Your task to perform on an android device: toggle improve location accuracy Image 0: 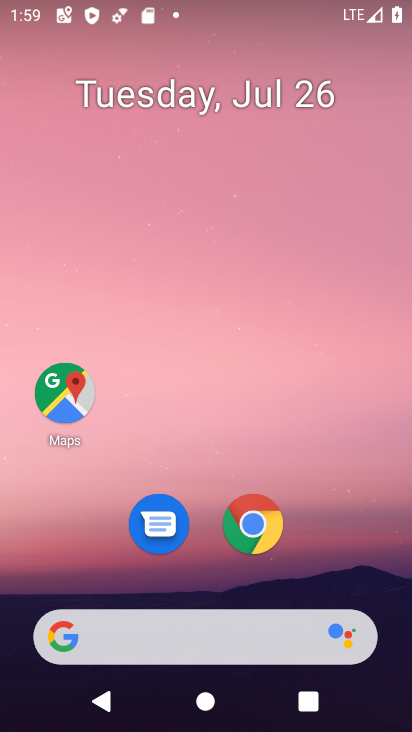
Step 0: drag from (328, 565) to (342, 76)
Your task to perform on an android device: toggle improve location accuracy Image 1: 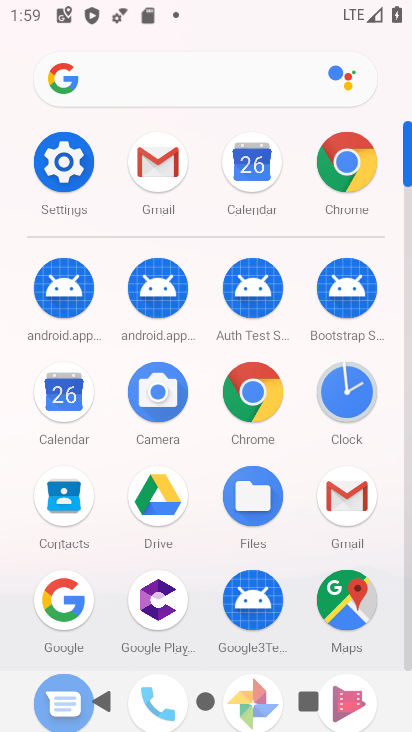
Step 1: click (65, 162)
Your task to perform on an android device: toggle improve location accuracy Image 2: 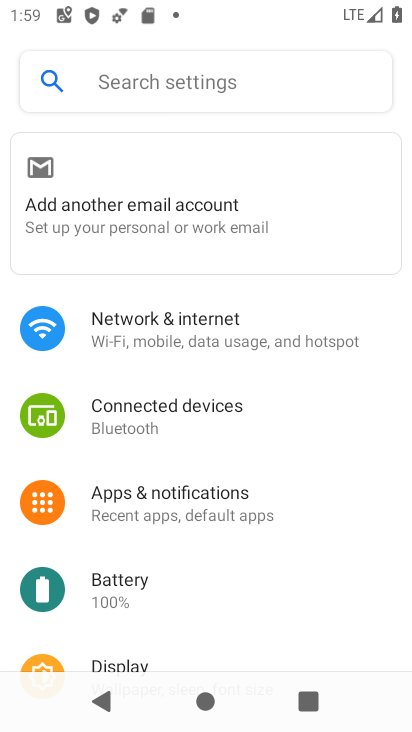
Step 2: drag from (182, 591) to (210, 68)
Your task to perform on an android device: toggle improve location accuracy Image 3: 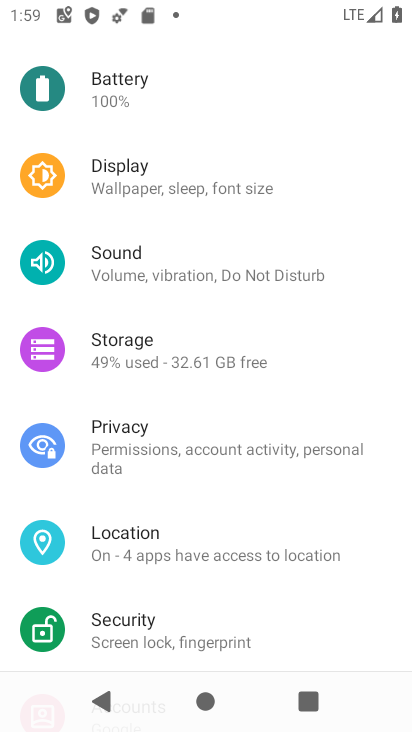
Step 3: click (185, 541)
Your task to perform on an android device: toggle improve location accuracy Image 4: 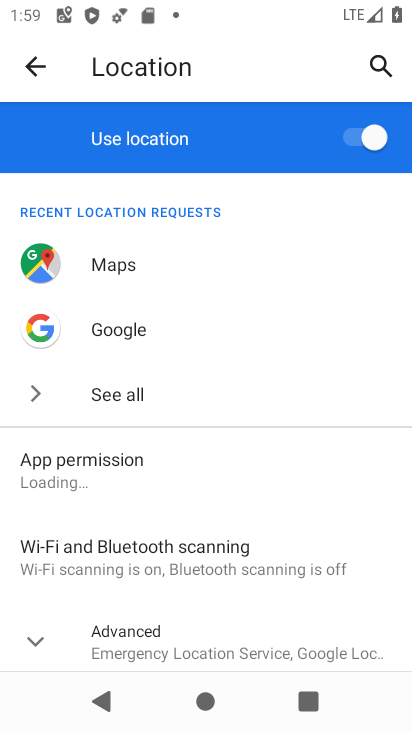
Step 4: drag from (247, 479) to (280, 211)
Your task to perform on an android device: toggle improve location accuracy Image 5: 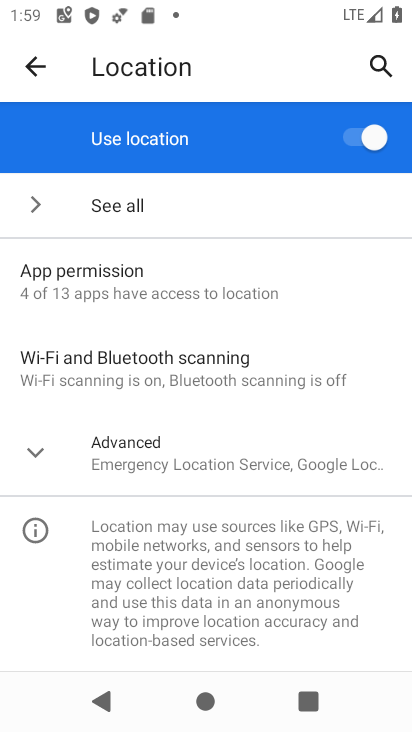
Step 5: click (36, 451)
Your task to perform on an android device: toggle improve location accuracy Image 6: 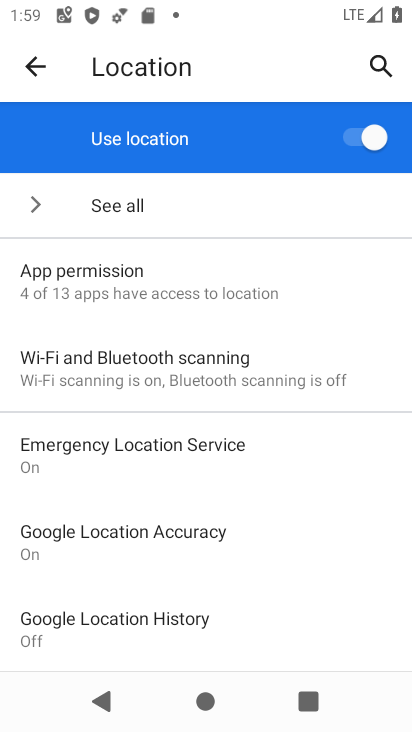
Step 6: click (154, 546)
Your task to perform on an android device: toggle improve location accuracy Image 7: 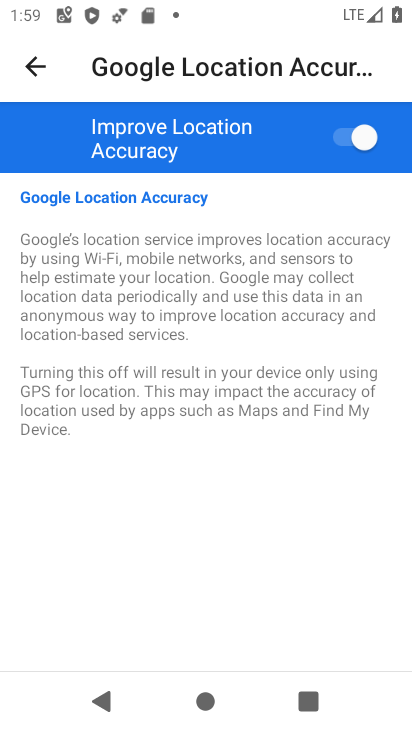
Step 7: click (356, 139)
Your task to perform on an android device: toggle improve location accuracy Image 8: 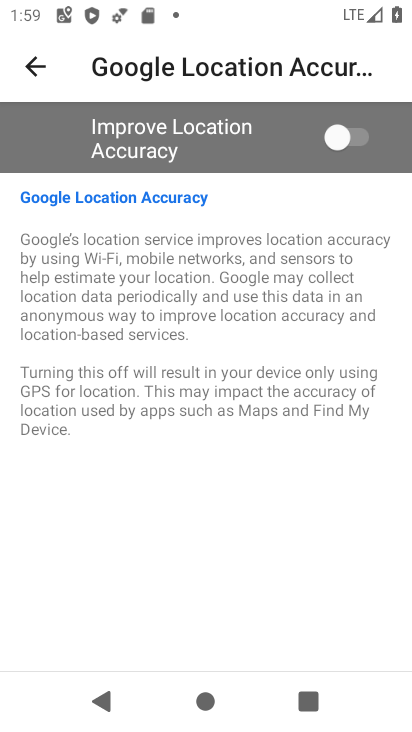
Step 8: task complete